Your task to perform on an android device: Open Yahoo.com Image 0: 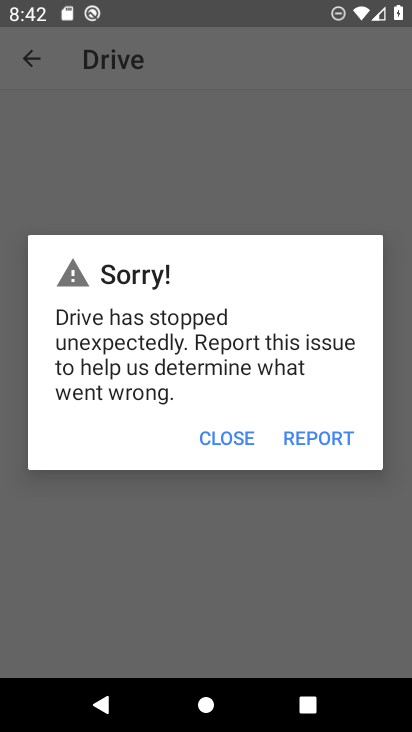
Step 0: press home button
Your task to perform on an android device: Open Yahoo.com Image 1: 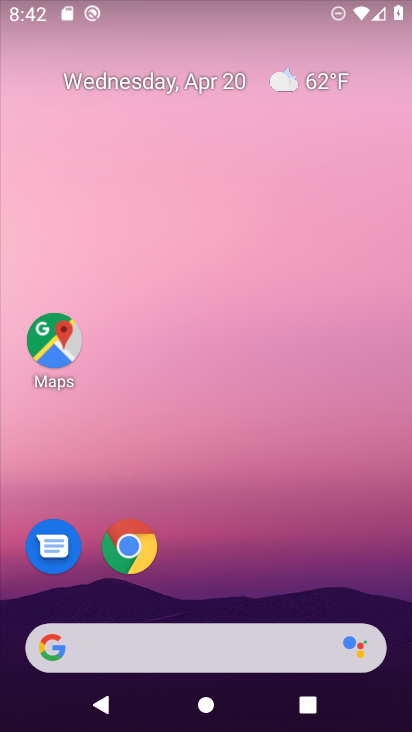
Step 1: click (260, 654)
Your task to perform on an android device: Open Yahoo.com Image 2: 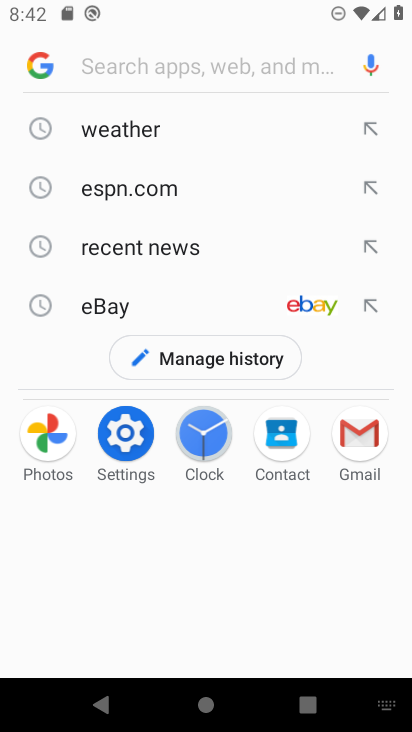
Step 2: type "yahoo.com"
Your task to perform on an android device: Open Yahoo.com Image 3: 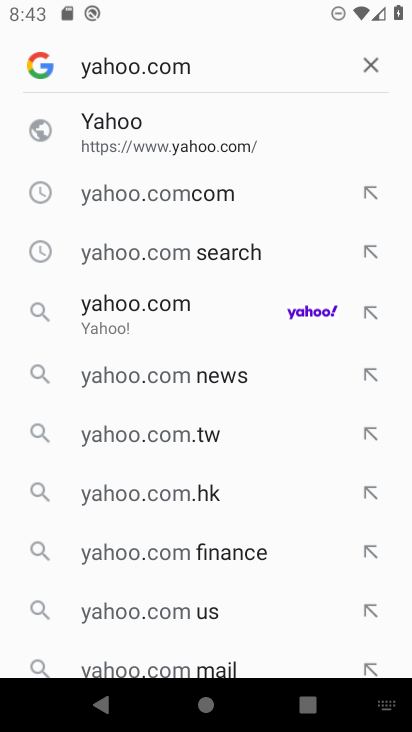
Step 3: click (216, 130)
Your task to perform on an android device: Open Yahoo.com Image 4: 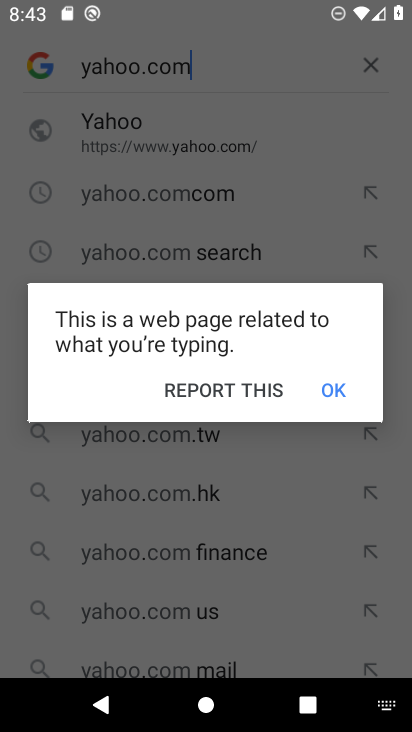
Step 4: click (334, 386)
Your task to perform on an android device: Open Yahoo.com Image 5: 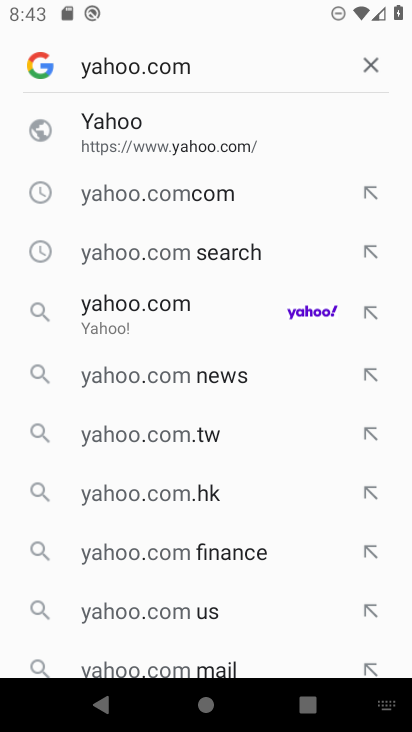
Step 5: click (283, 310)
Your task to perform on an android device: Open Yahoo.com Image 6: 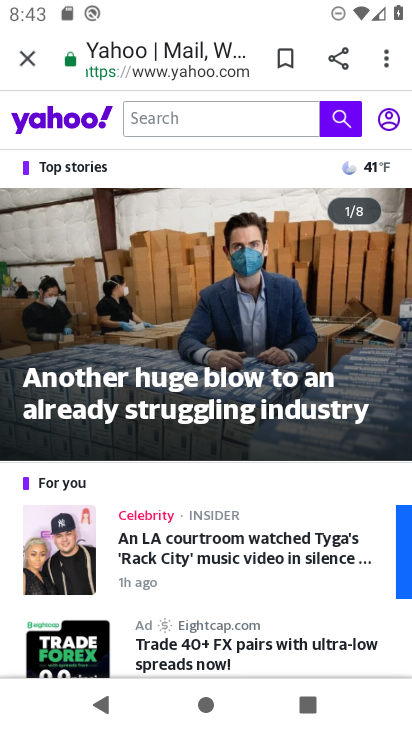
Step 6: task complete